Your task to perform on an android device: empty trash in the gmail app Image 0: 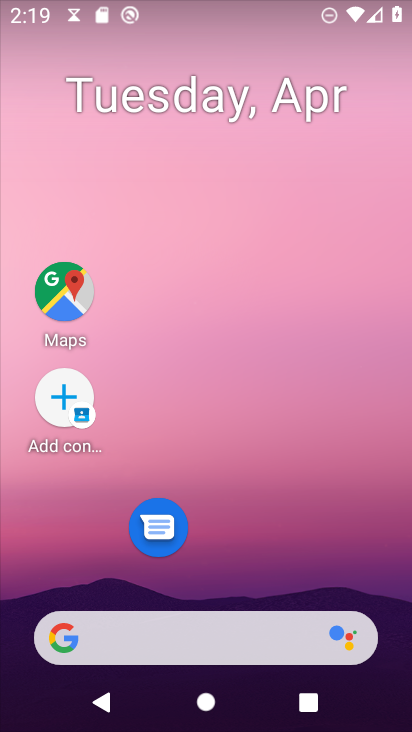
Step 0: drag from (260, 576) to (279, 153)
Your task to perform on an android device: empty trash in the gmail app Image 1: 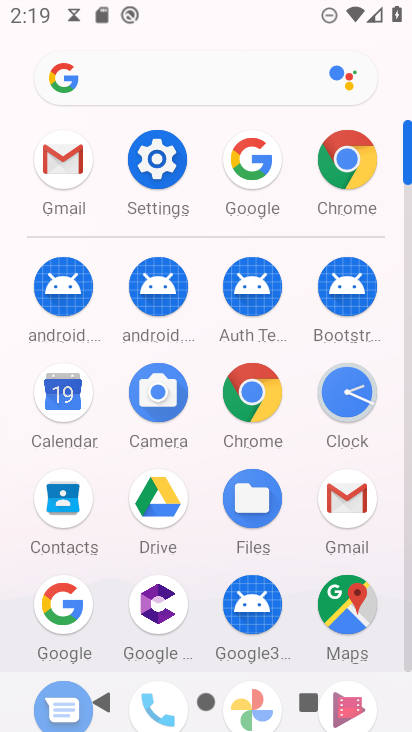
Step 1: click (67, 159)
Your task to perform on an android device: empty trash in the gmail app Image 2: 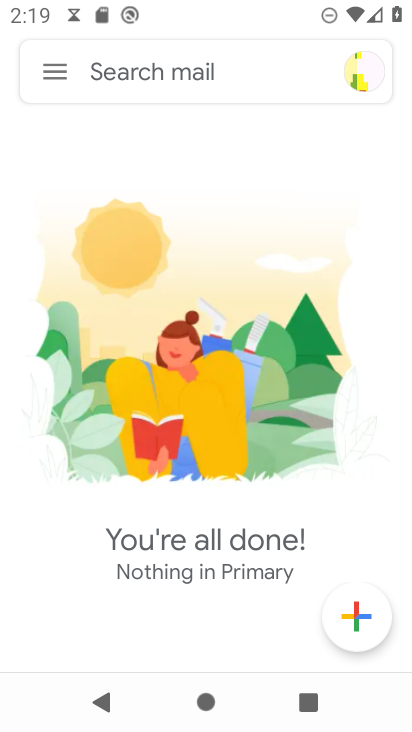
Step 2: click (53, 64)
Your task to perform on an android device: empty trash in the gmail app Image 3: 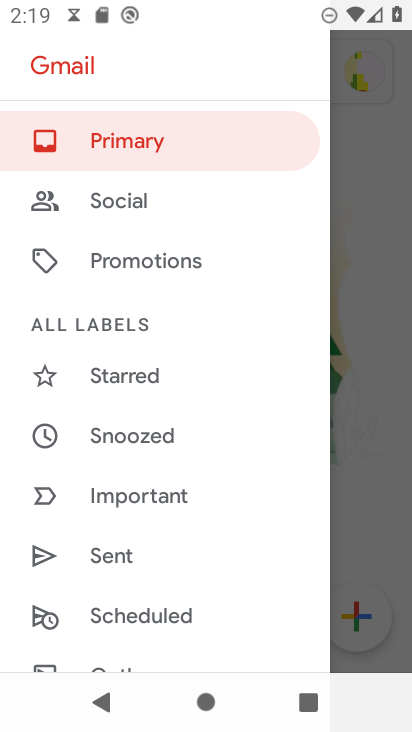
Step 3: drag from (153, 354) to (180, 245)
Your task to perform on an android device: empty trash in the gmail app Image 4: 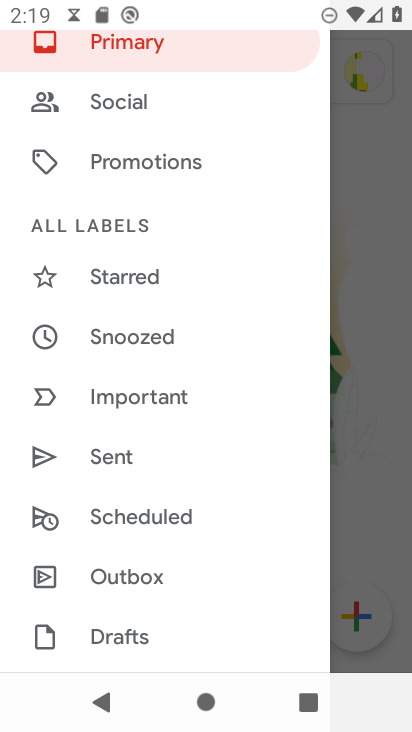
Step 4: drag from (160, 384) to (160, 320)
Your task to perform on an android device: empty trash in the gmail app Image 5: 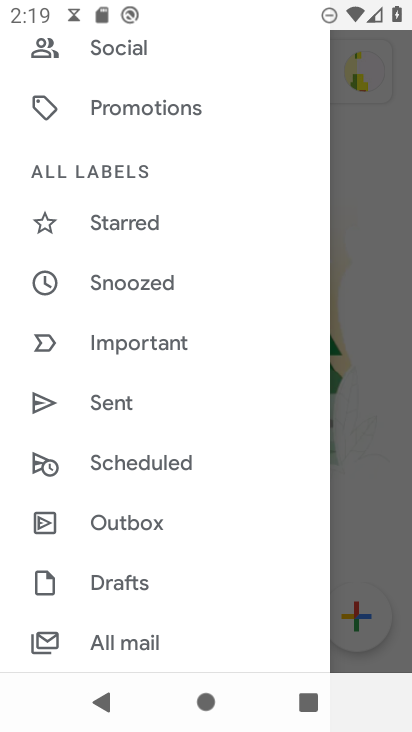
Step 5: drag from (142, 413) to (157, 334)
Your task to perform on an android device: empty trash in the gmail app Image 6: 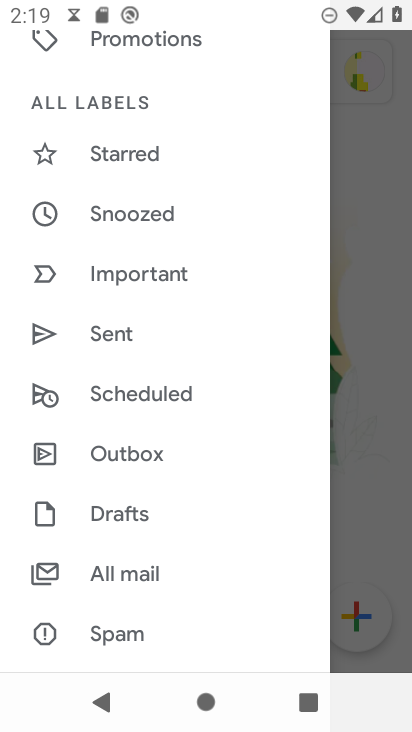
Step 6: drag from (144, 452) to (151, 351)
Your task to perform on an android device: empty trash in the gmail app Image 7: 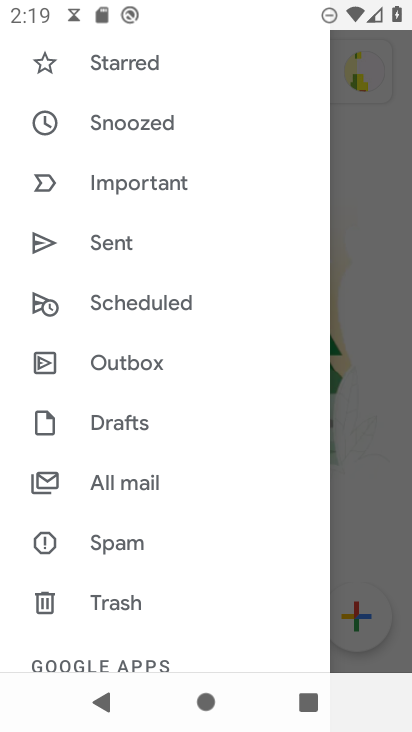
Step 7: drag from (147, 472) to (150, 352)
Your task to perform on an android device: empty trash in the gmail app Image 8: 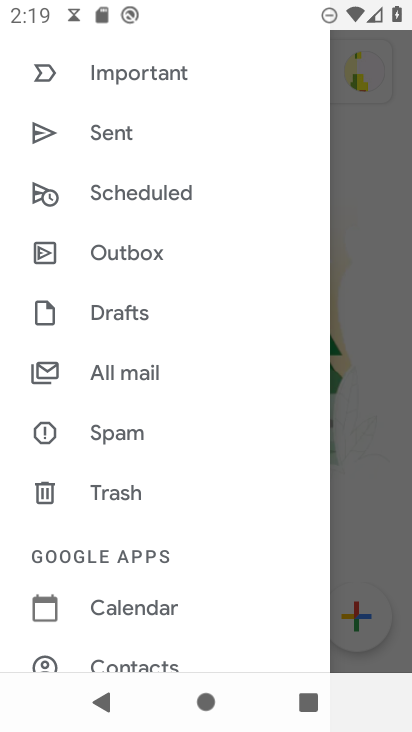
Step 8: click (117, 496)
Your task to perform on an android device: empty trash in the gmail app Image 9: 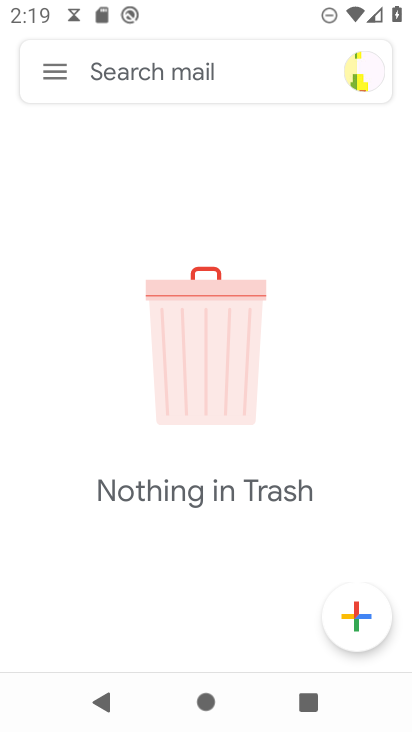
Step 9: task complete